Your task to perform on an android device: find snoozed emails in the gmail app Image 0: 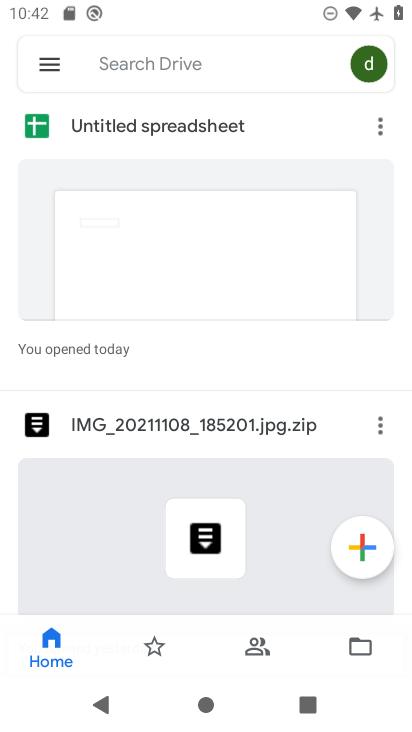
Step 0: press home button
Your task to perform on an android device: find snoozed emails in the gmail app Image 1: 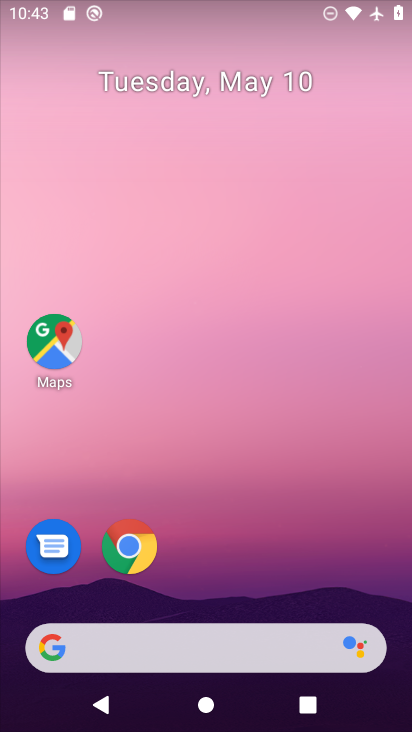
Step 1: drag from (293, 552) to (307, 93)
Your task to perform on an android device: find snoozed emails in the gmail app Image 2: 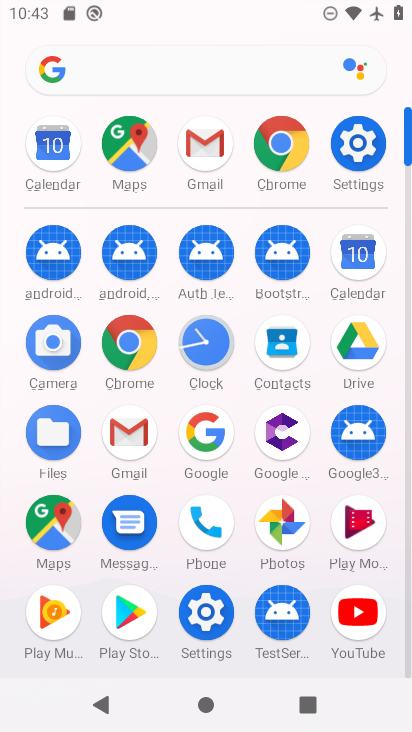
Step 2: click (218, 149)
Your task to perform on an android device: find snoozed emails in the gmail app Image 3: 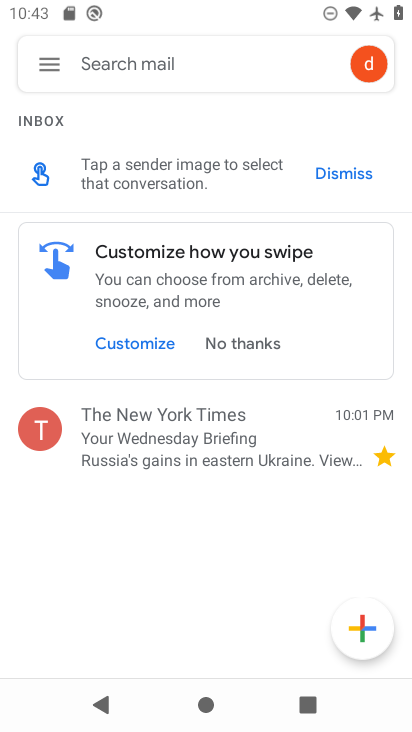
Step 3: click (41, 58)
Your task to perform on an android device: find snoozed emails in the gmail app Image 4: 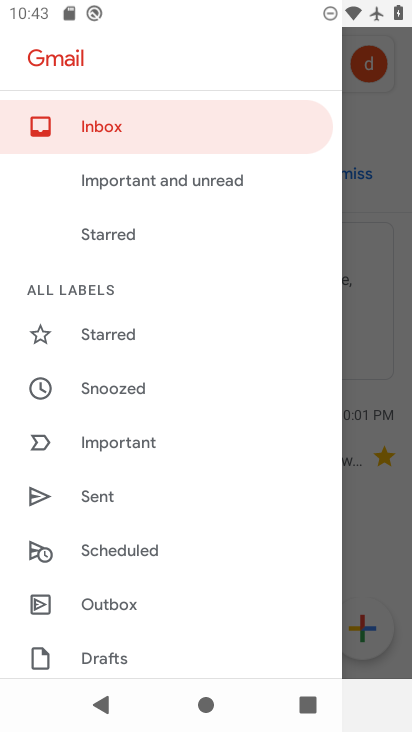
Step 4: drag from (161, 590) to (161, 535)
Your task to perform on an android device: find snoozed emails in the gmail app Image 5: 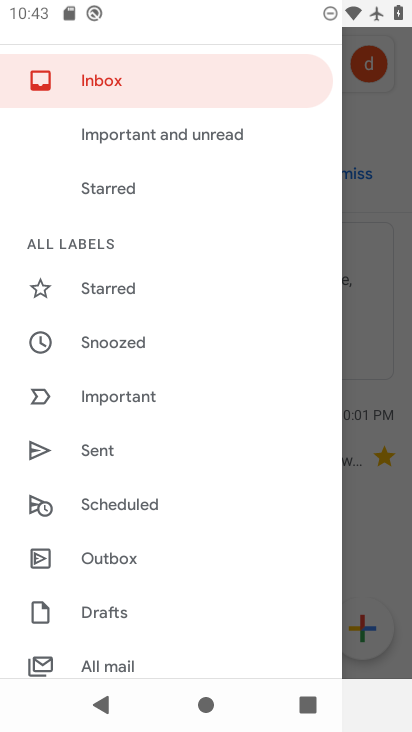
Step 5: click (121, 351)
Your task to perform on an android device: find snoozed emails in the gmail app Image 6: 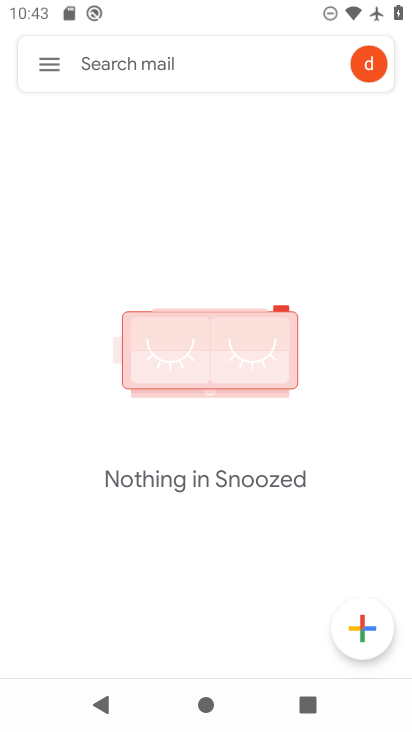
Step 6: task complete